Your task to perform on an android device: Open calendar and show me the second week of next month Image 0: 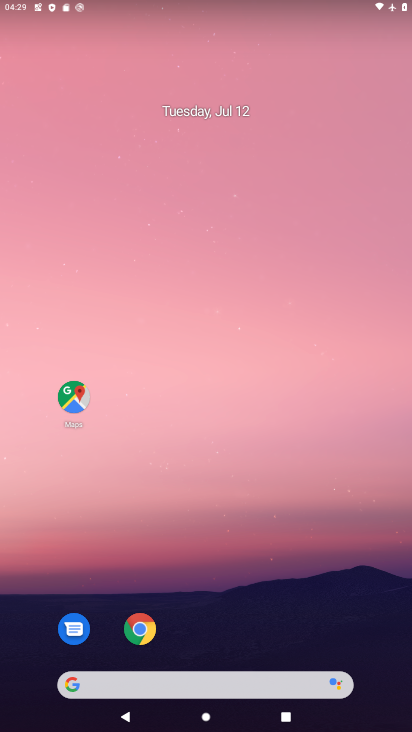
Step 0: drag from (303, 616) to (261, 145)
Your task to perform on an android device: Open calendar and show me the second week of next month Image 1: 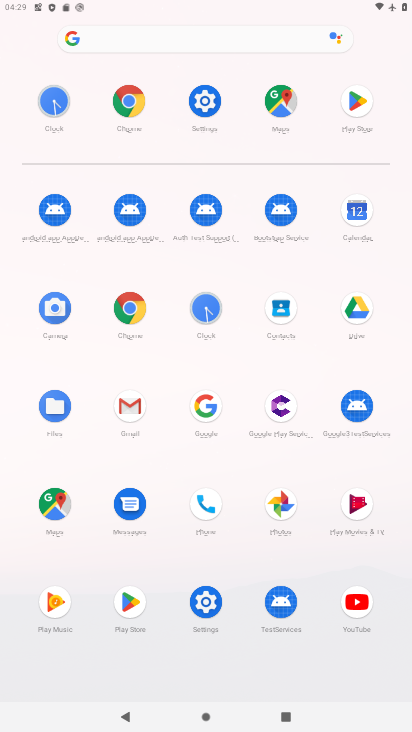
Step 1: click (355, 214)
Your task to perform on an android device: Open calendar and show me the second week of next month Image 2: 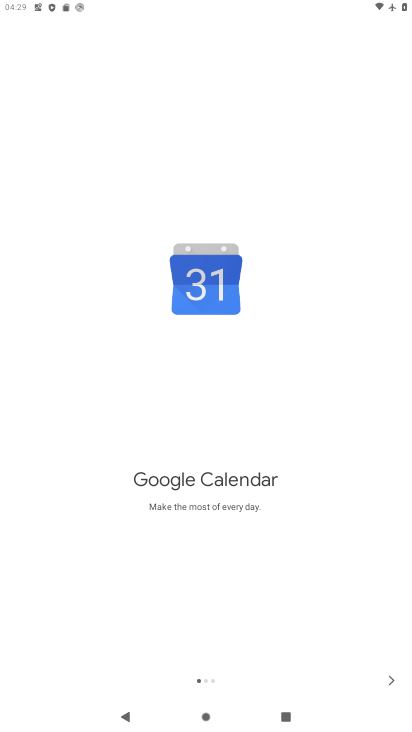
Step 2: click (398, 678)
Your task to perform on an android device: Open calendar and show me the second week of next month Image 3: 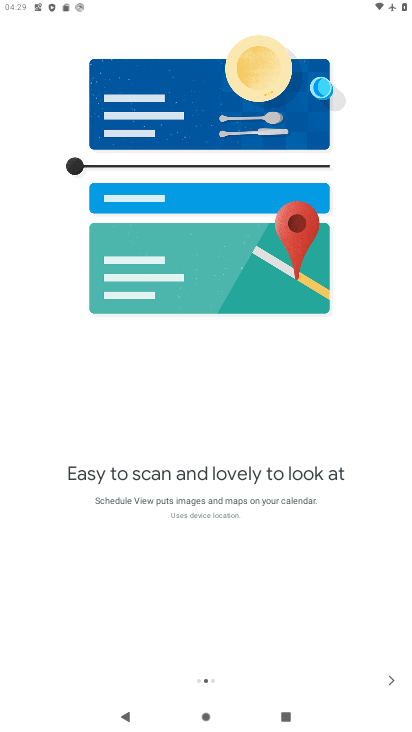
Step 3: click (398, 678)
Your task to perform on an android device: Open calendar and show me the second week of next month Image 4: 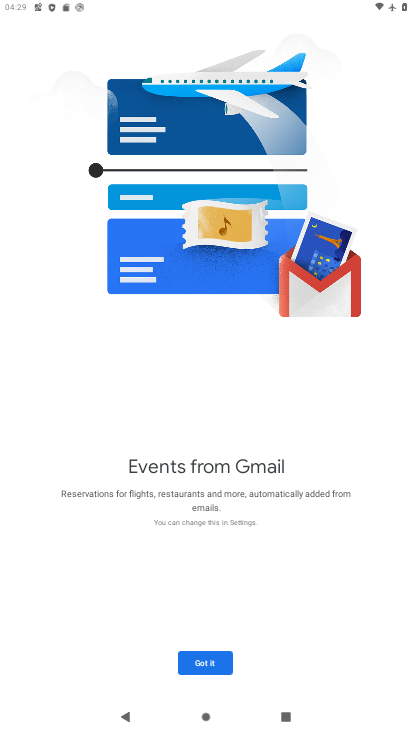
Step 4: click (218, 664)
Your task to perform on an android device: Open calendar and show me the second week of next month Image 5: 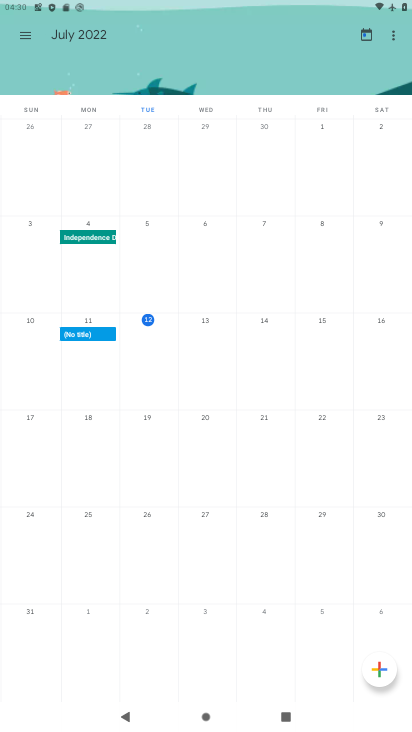
Step 5: drag from (374, 277) to (44, 257)
Your task to perform on an android device: Open calendar and show me the second week of next month Image 6: 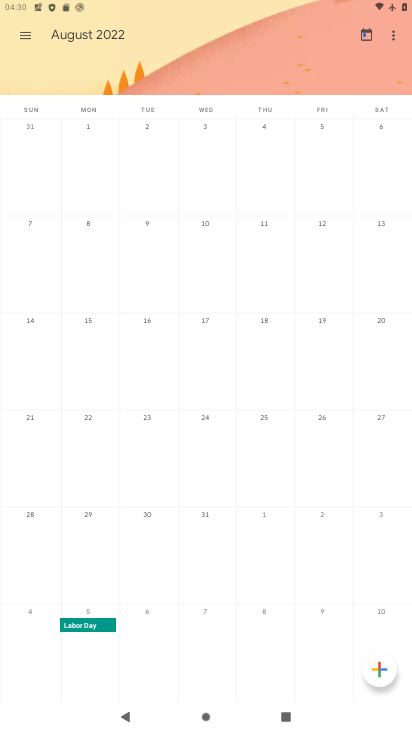
Step 6: click (92, 222)
Your task to perform on an android device: Open calendar and show me the second week of next month Image 7: 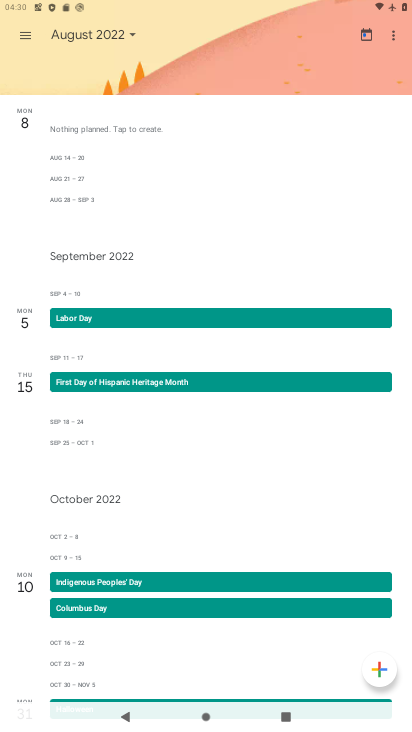
Step 7: click (29, 43)
Your task to perform on an android device: Open calendar and show me the second week of next month Image 8: 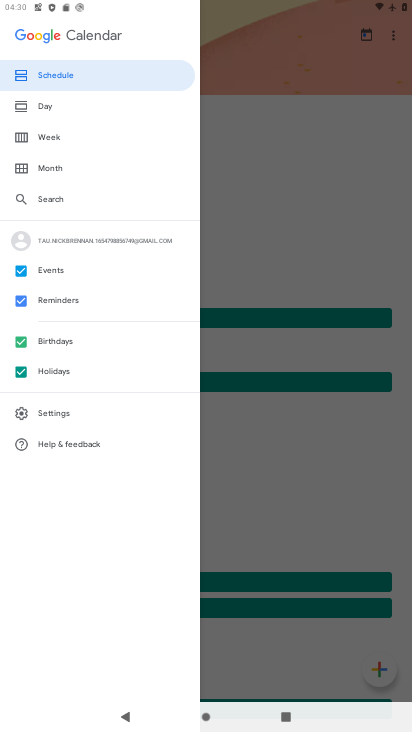
Step 8: click (61, 143)
Your task to perform on an android device: Open calendar and show me the second week of next month Image 9: 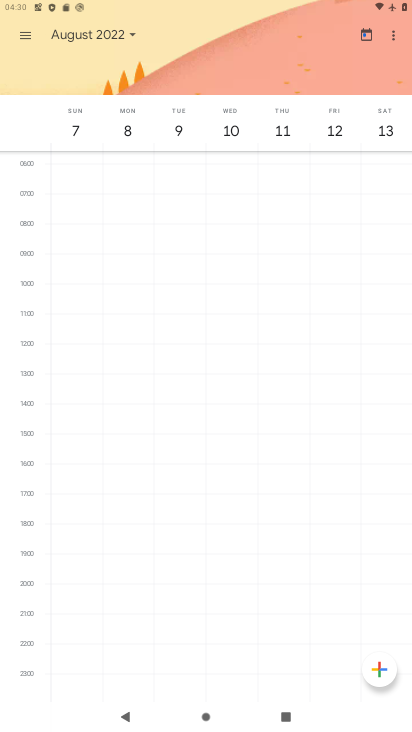
Step 9: task complete